Your task to perform on an android device: Check the weather Image 0: 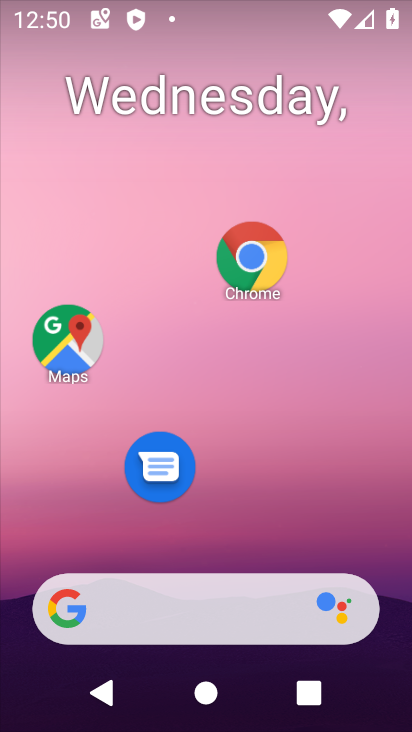
Step 0: click (253, 250)
Your task to perform on an android device: Check the weather Image 1: 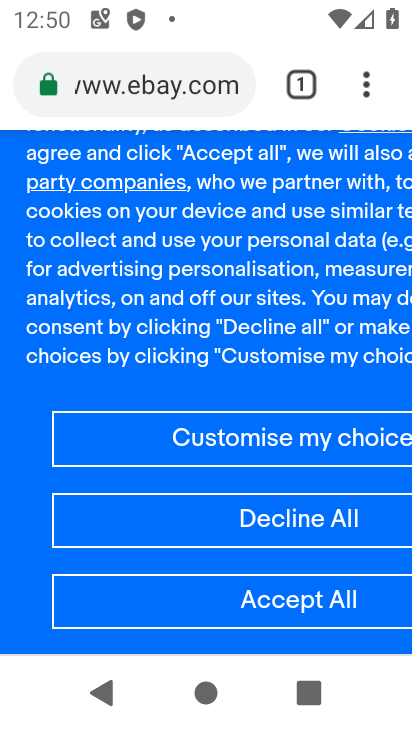
Step 1: click (178, 88)
Your task to perform on an android device: Check the weather Image 2: 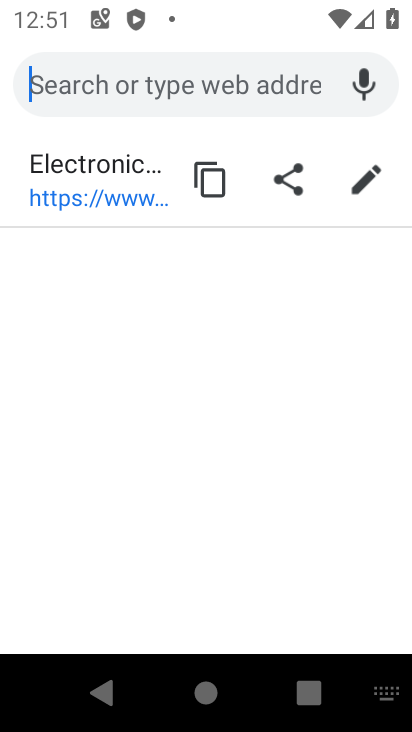
Step 2: type "weather"
Your task to perform on an android device: Check the weather Image 3: 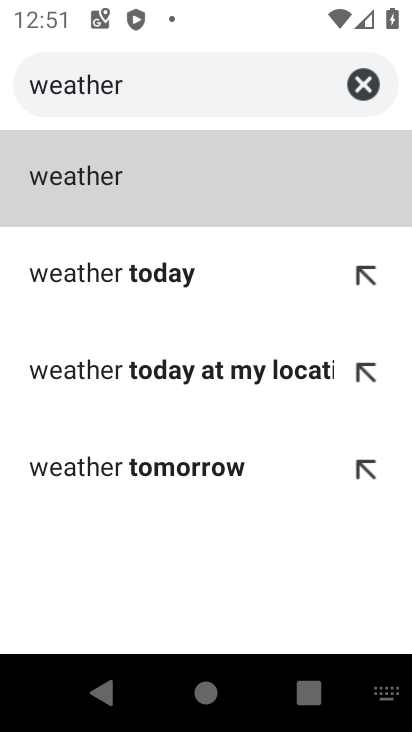
Step 3: click (94, 198)
Your task to perform on an android device: Check the weather Image 4: 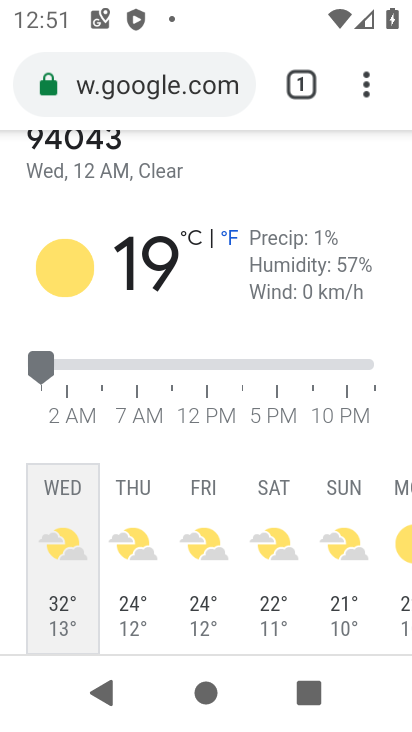
Step 4: task complete